Your task to perform on an android device: open app "McDonald's" (install if not already installed), go to login, and select forgot password Image 0: 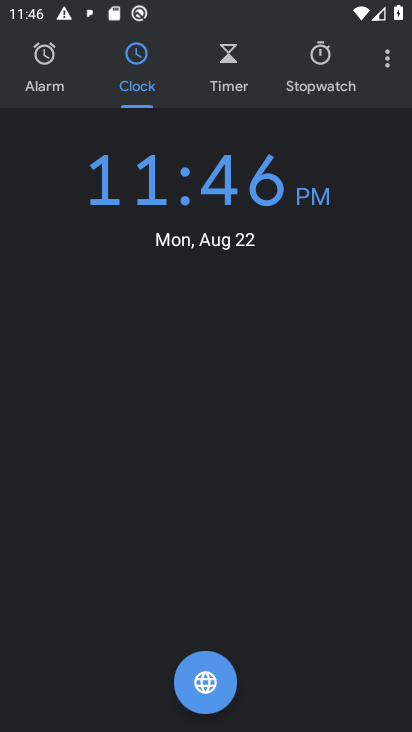
Step 0: press home button
Your task to perform on an android device: open app "McDonald's" (install if not already installed), go to login, and select forgot password Image 1: 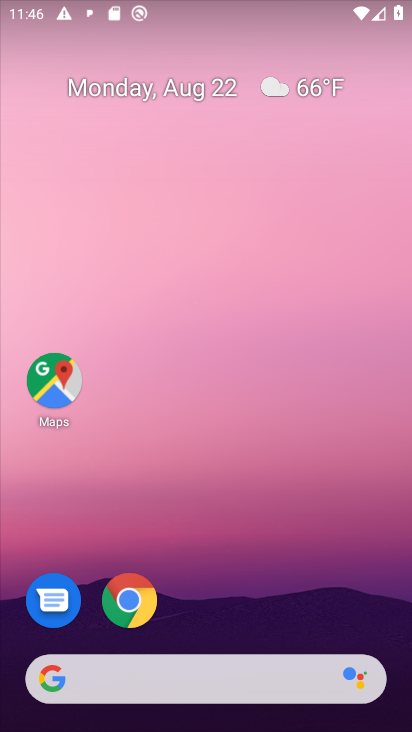
Step 1: drag from (216, 591) to (240, 143)
Your task to perform on an android device: open app "McDonald's" (install if not already installed), go to login, and select forgot password Image 2: 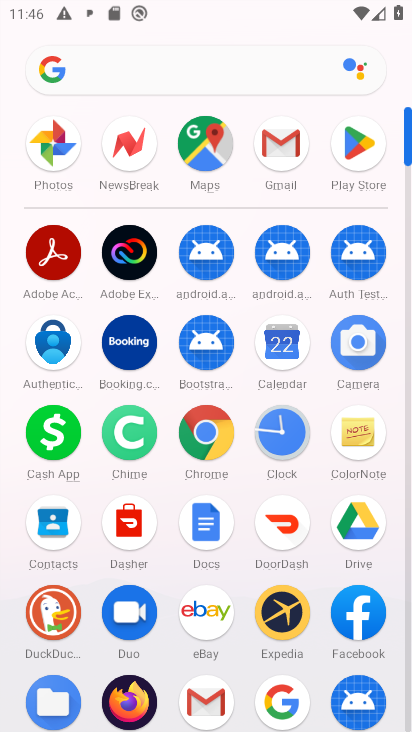
Step 2: click (342, 128)
Your task to perform on an android device: open app "McDonald's" (install if not already installed), go to login, and select forgot password Image 3: 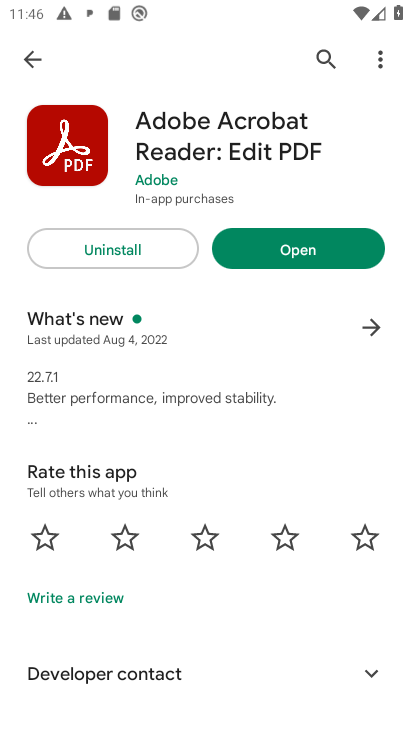
Step 3: click (329, 42)
Your task to perform on an android device: open app "McDonald's" (install if not already installed), go to login, and select forgot password Image 4: 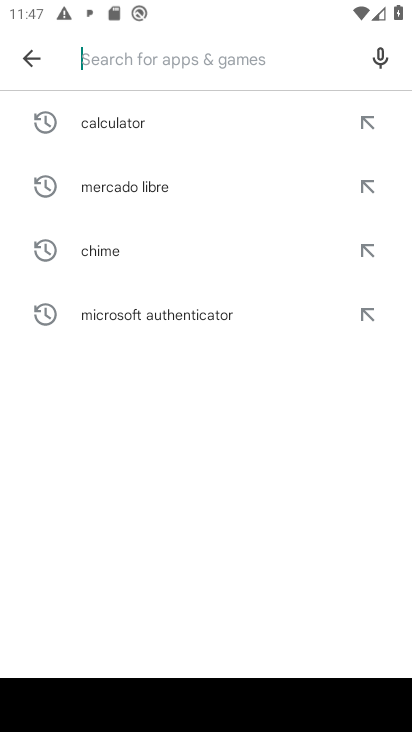
Step 4: type "McDonald's"
Your task to perform on an android device: open app "McDonald's" (install if not already installed), go to login, and select forgot password Image 5: 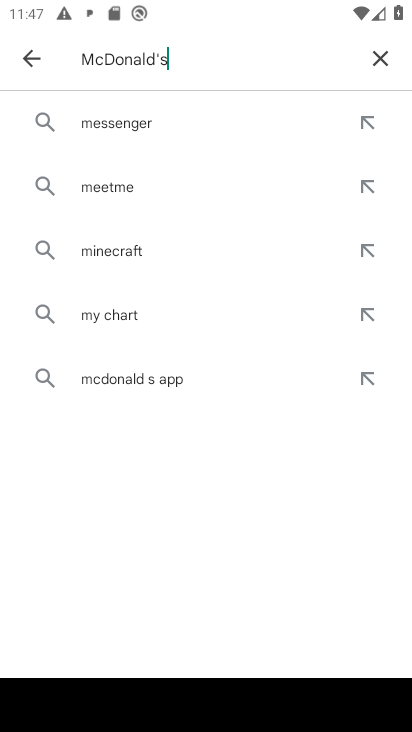
Step 5: type ""
Your task to perform on an android device: open app "McDonald's" (install if not already installed), go to login, and select forgot password Image 6: 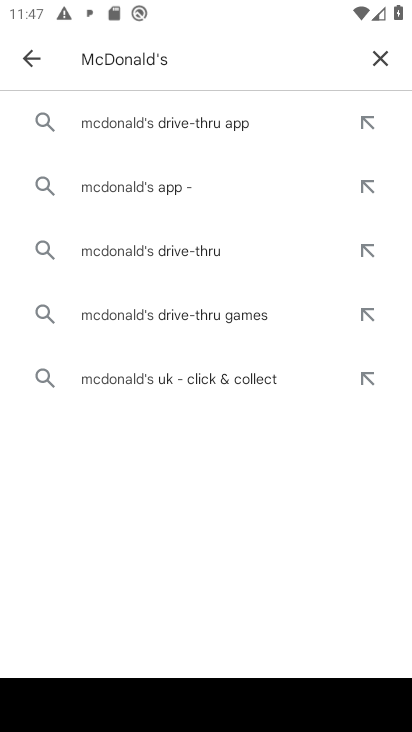
Step 6: click (171, 122)
Your task to perform on an android device: open app "McDonald's" (install if not already installed), go to login, and select forgot password Image 7: 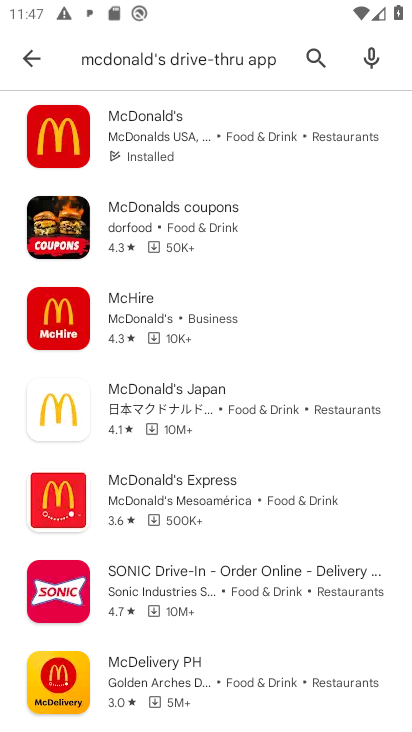
Step 7: click (171, 122)
Your task to perform on an android device: open app "McDonald's" (install if not already installed), go to login, and select forgot password Image 8: 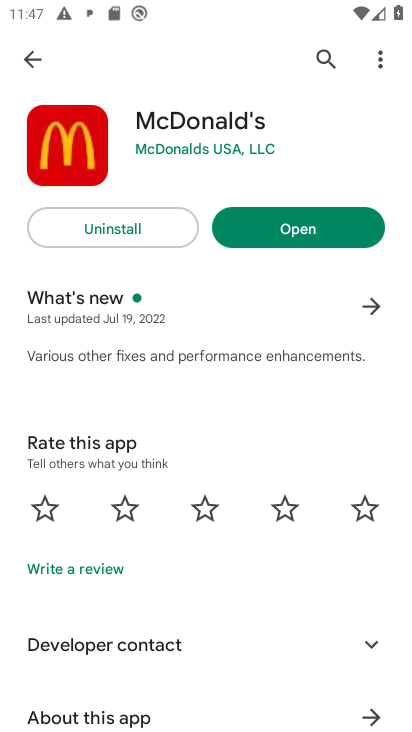
Step 8: click (318, 231)
Your task to perform on an android device: open app "McDonald's" (install if not already installed), go to login, and select forgot password Image 9: 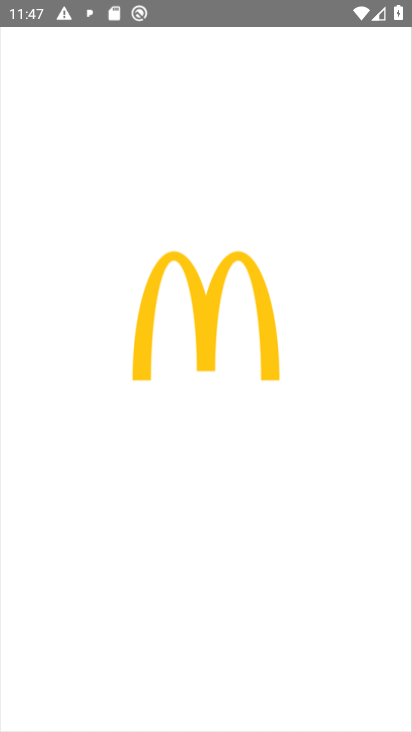
Step 9: task complete